Your task to perform on an android device: Open Yahoo.com Image 0: 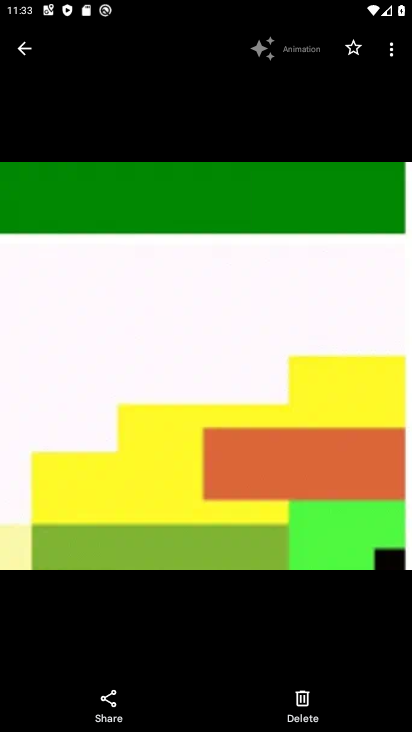
Step 0: press home button
Your task to perform on an android device: Open Yahoo.com Image 1: 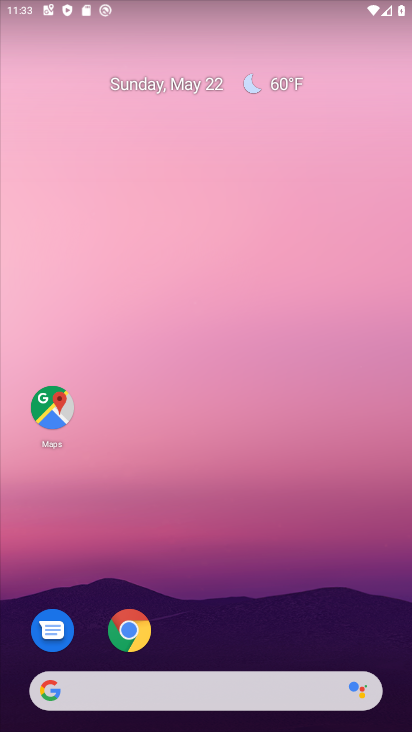
Step 1: click (129, 631)
Your task to perform on an android device: Open Yahoo.com Image 2: 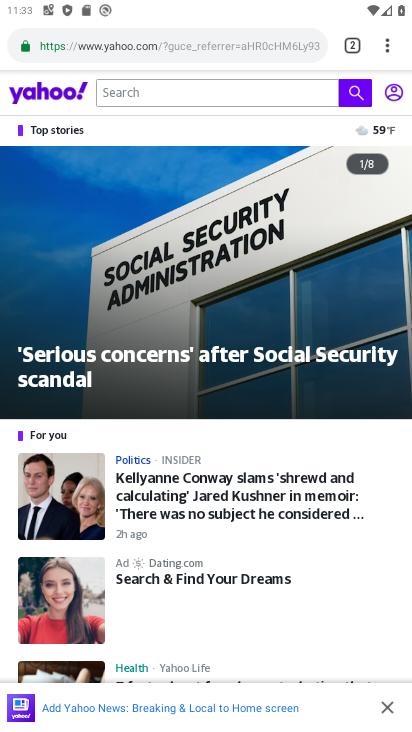
Step 2: task complete